Your task to perform on an android device: star an email in the gmail app Image 0: 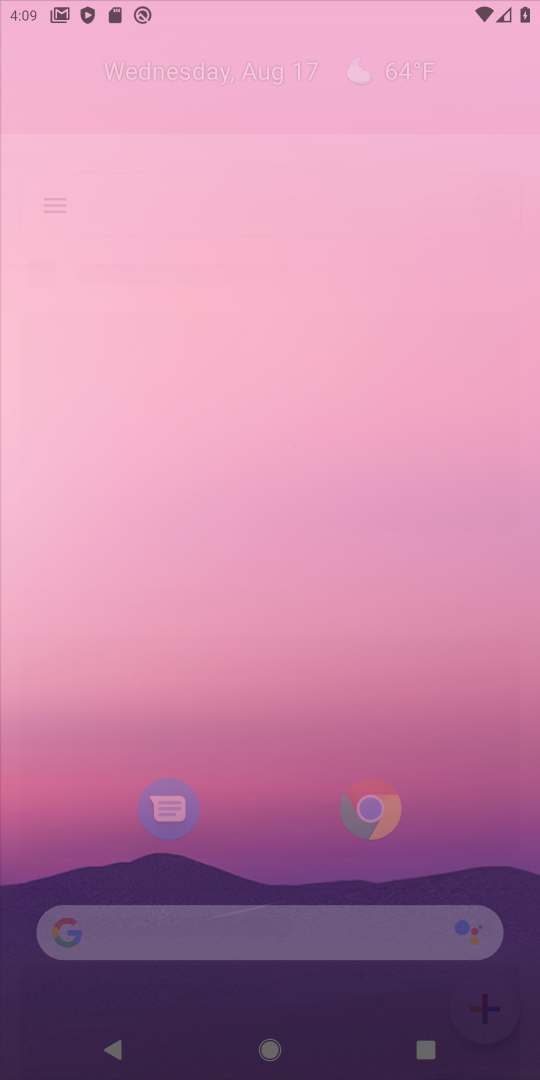
Step 0: press home button
Your task to perform on an android device: star an email in the gmail app Image 1: 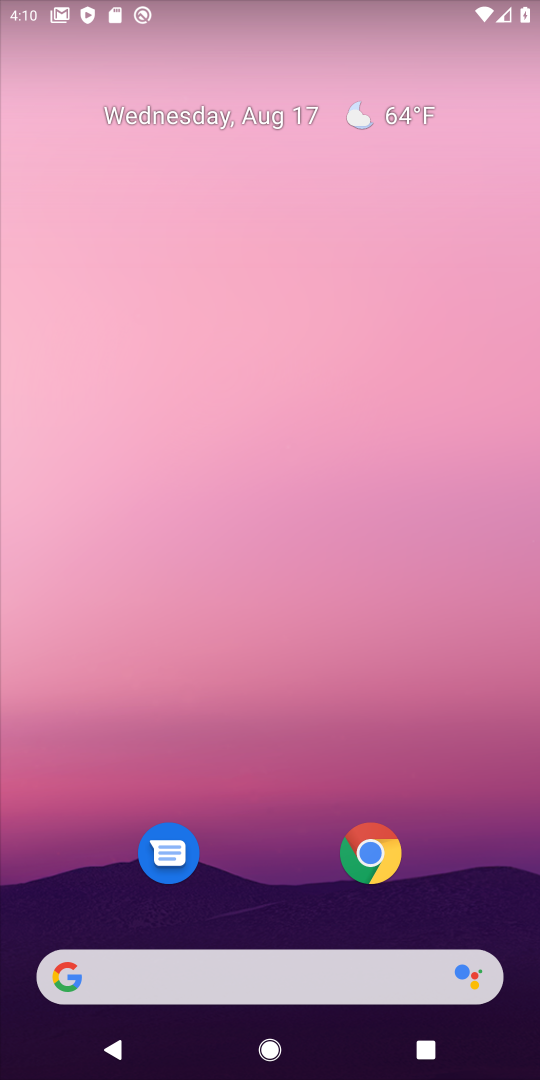
Step 1: drag from (460, 667) to (434, 196)
Your task to perform on an android device: star an email in the gmail app Image 2: 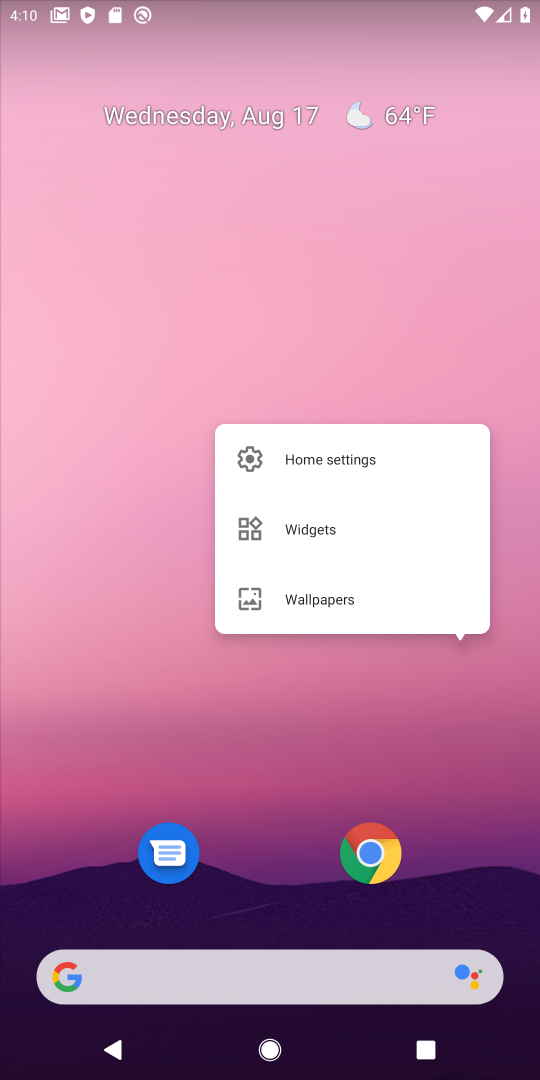
Step 2: click (451, 908)
Your task to perform on an android device: star an email in the gmail app Image 3: 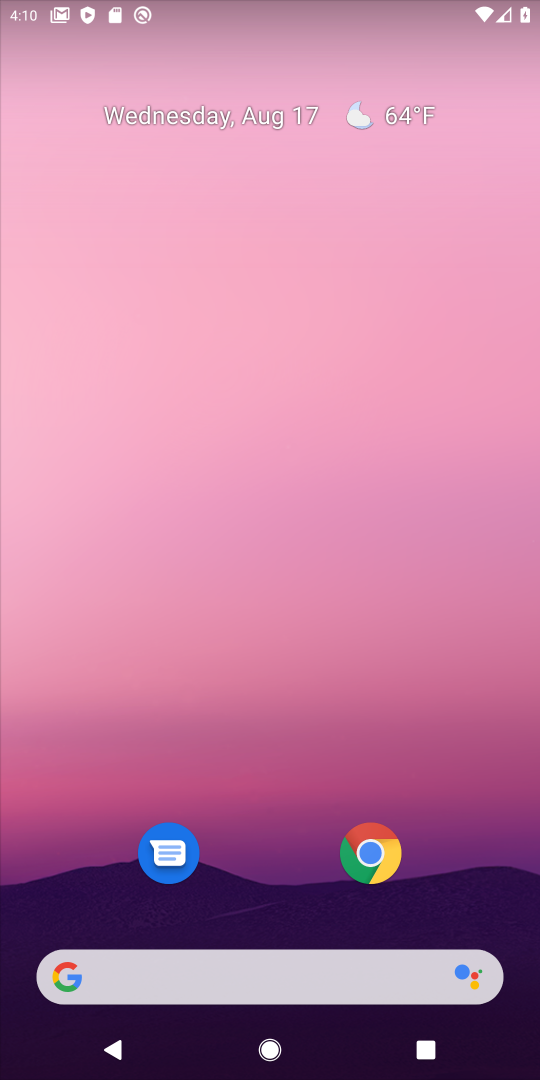
Step 3: drag from (451, 908) to (430, 131)
Your task to perform on an android device: star an email in the gmail app Image 4: 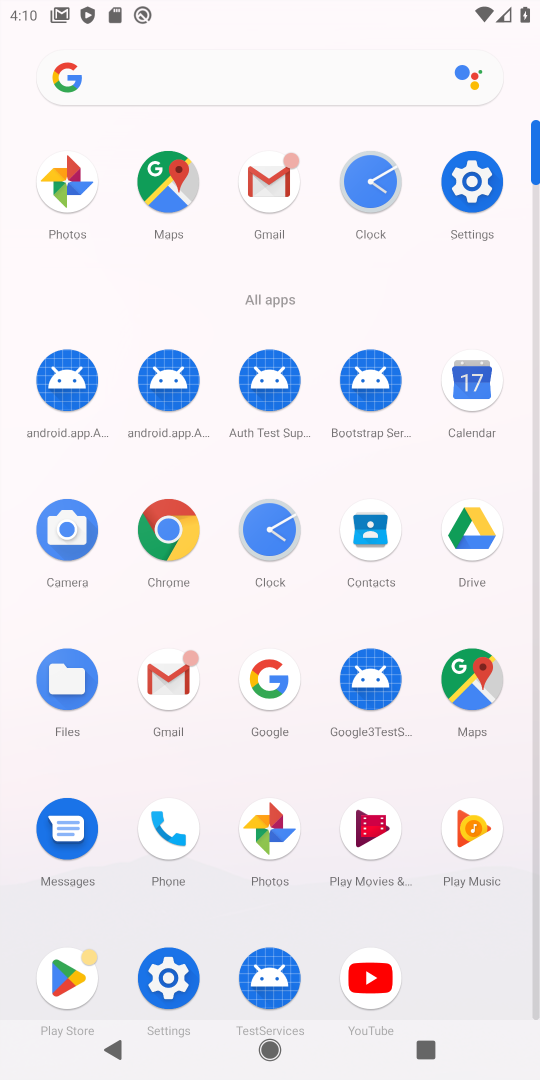
Step 4: click (168, 679)
Your task to perform on an android device: star an email in the gmail app Image 5: 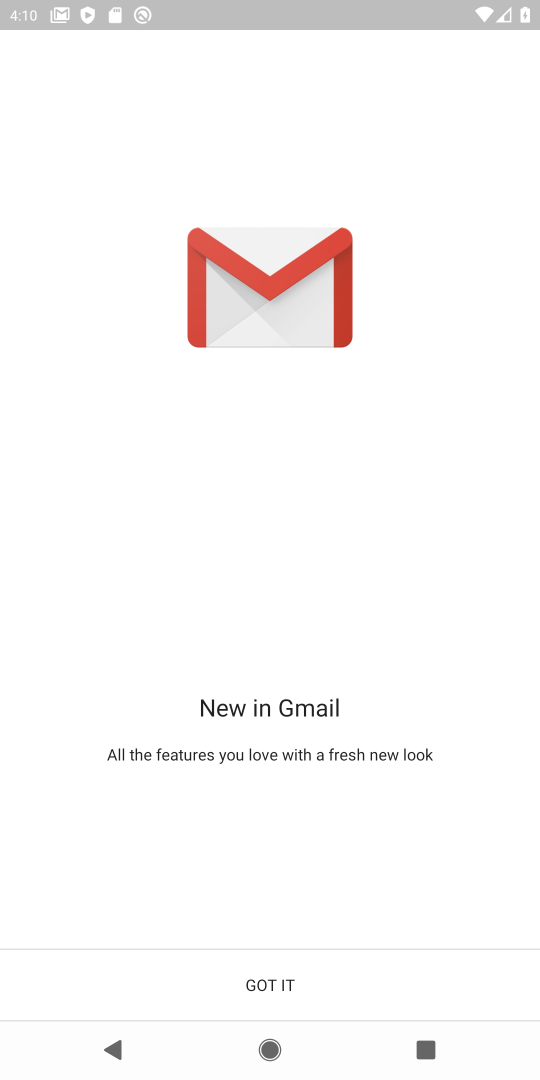
Step 5: click (283, 972)
Your task to perform on an android device: star an email in the gmail app Image 6: 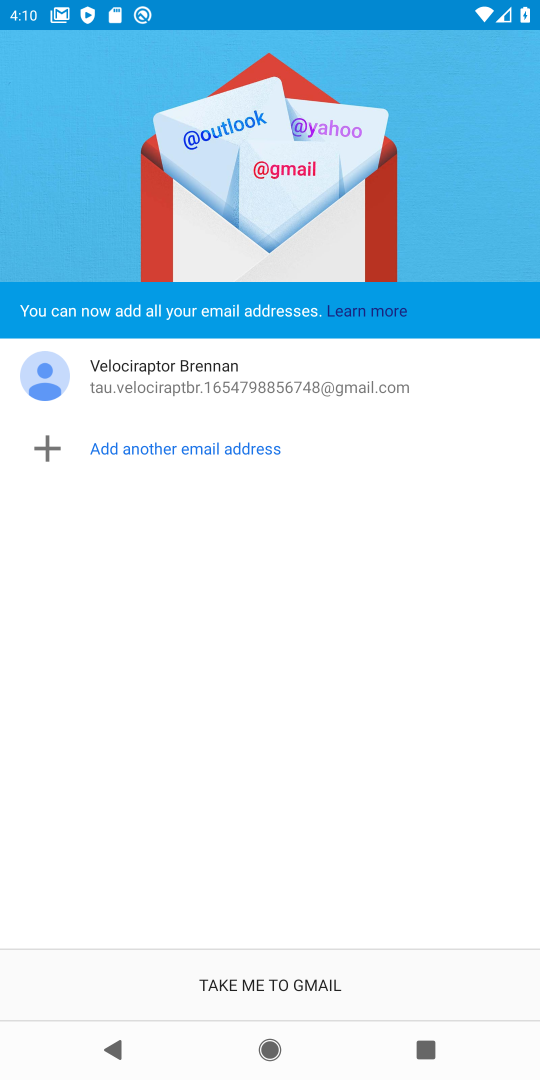
Step 6: click (259, 979)
Your task to perform on an android device: star an email in the gmail app Image 7: 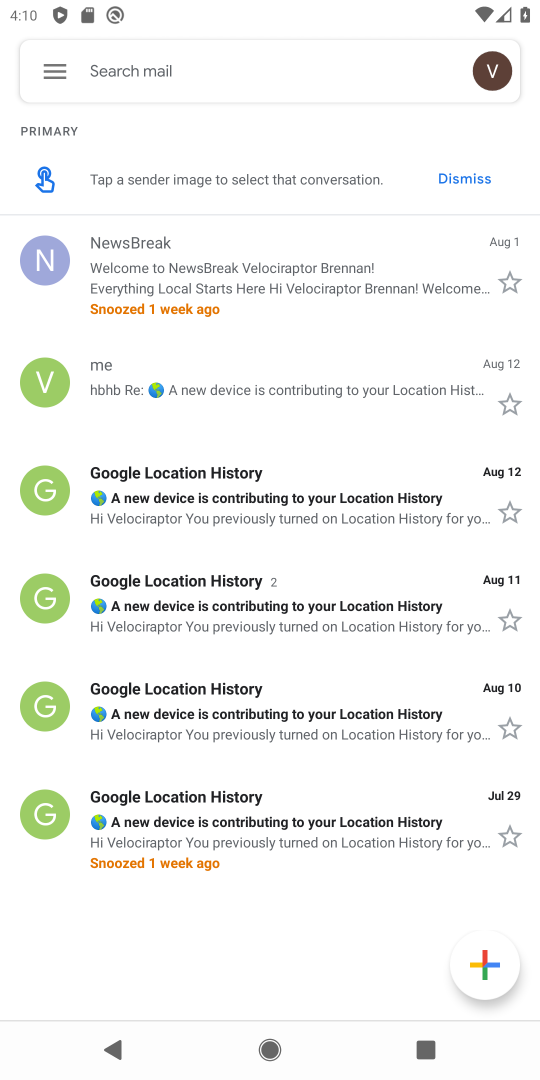
Step 7: click (509, 280)
Your task to perform on an android device: star an email in the gmail app Image 8: 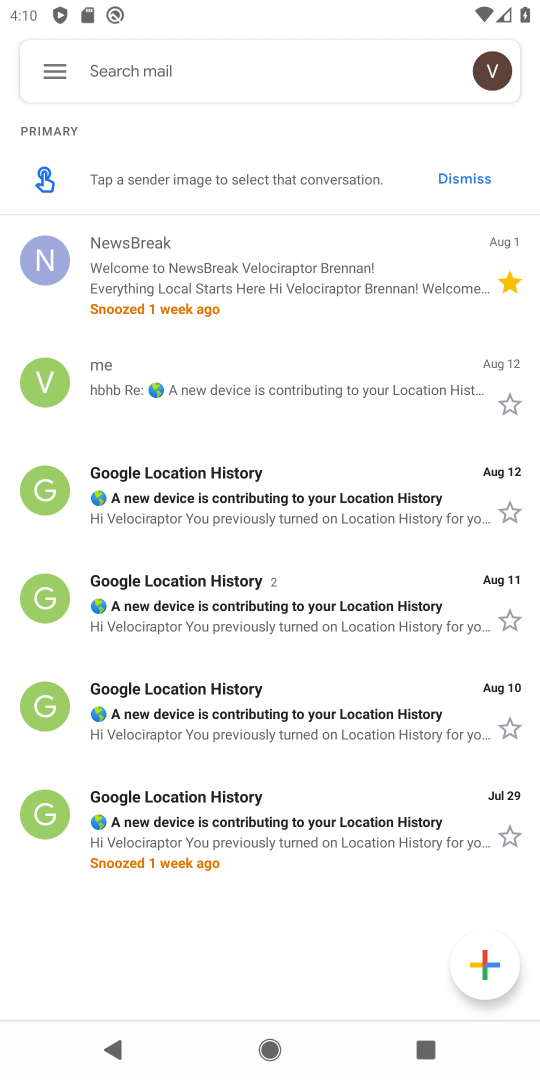
Step 8: task complete